Your task to perform on an android device: Open Google Image 0: 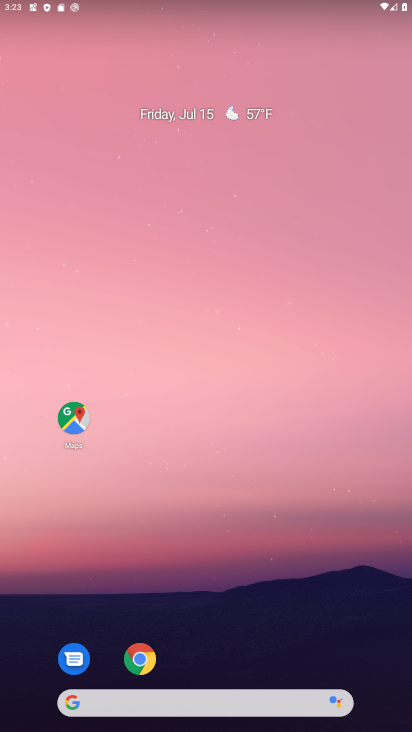
Step 0: click (120, 697)
Your task to perform on an android device: Open Google Image 1: 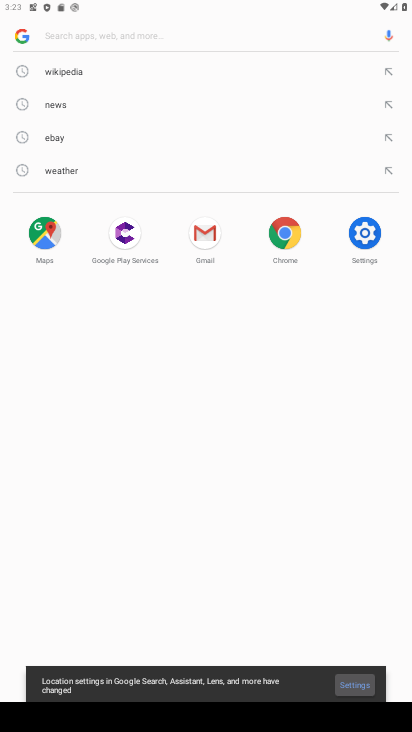
Step 1: task complete